Your task to perform on an android device: turn smart compose on in the gmail app Image 0: 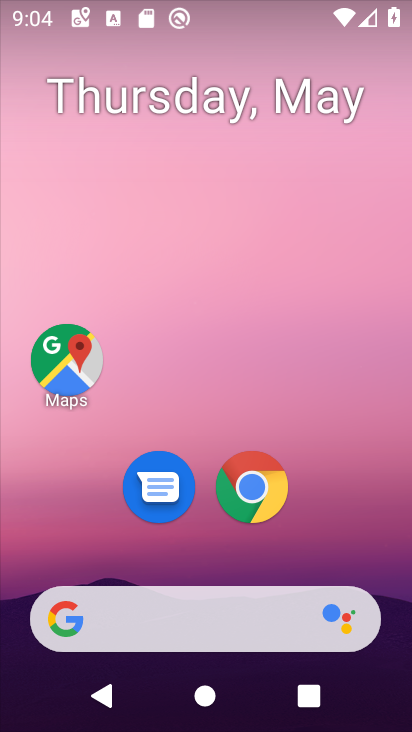
Step 0: drag from (336, 561) to (267, 37)
Your task to perform on an android device: turn smart compose on in the gmail app Image 1: 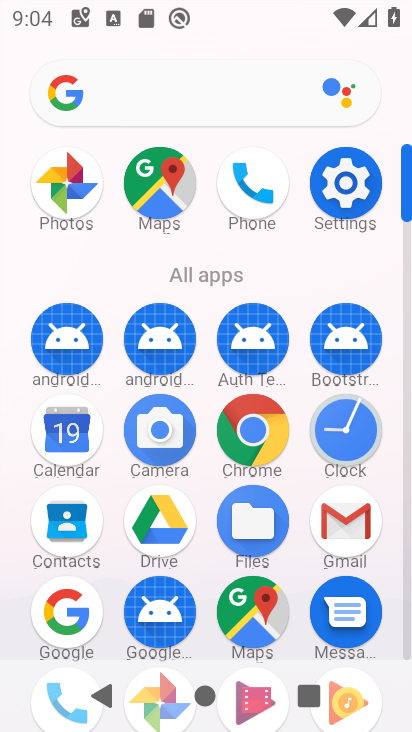
Step 1: click (360, 529)
Your task to perform on an android device: turn smart compose on in the gmail app Image 2: 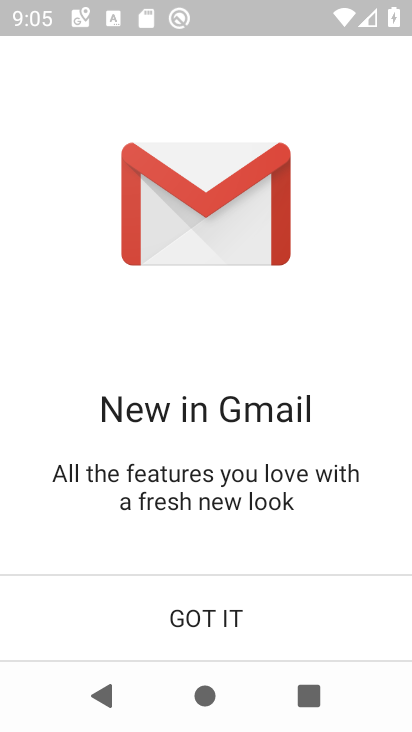
Step 2: click (190, 612)
Your task to perform on an android device: turn smart compose on in the gmail app Image 3: 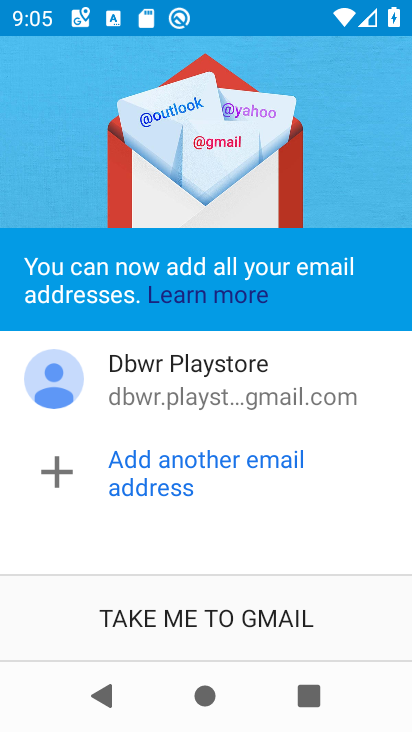
Step 3: click (210, 611)
Your task to perform on an android device: turn smart compose on in the gmail app Image 4: 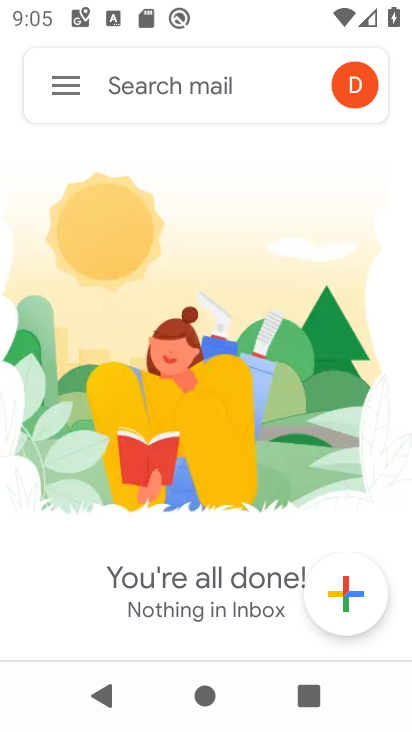
Step 4: click (71, 87)
Your task to perform on an android device: turn smart compose on in the gmail app Image 5: 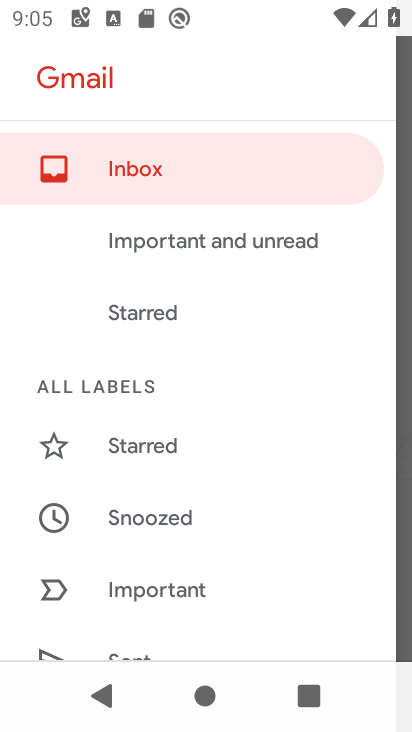
Step 5: drag from (224, 630) to (115, 88)
Your task to perform on an android device: turn smart compose on in the gmail app Image 6: 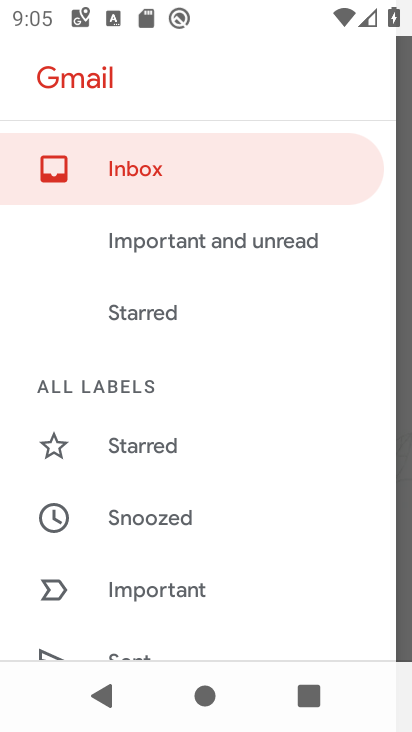
Step 6: drag from (135, 617) to (71, 33)
Your task to perform on an android device: turn smart compose on in the gmail app Image 7: 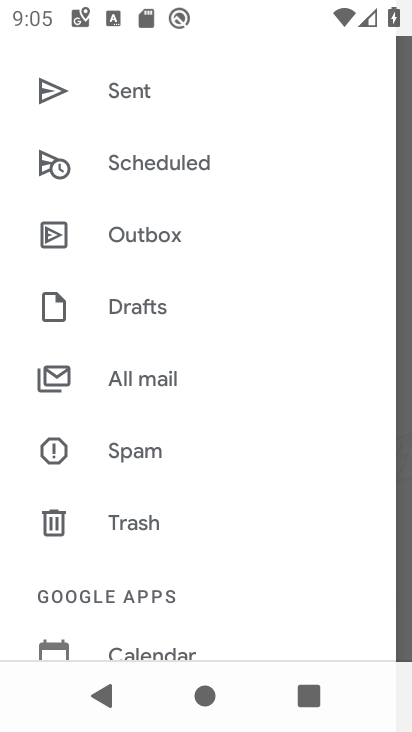
Step 7: drag from (159, 626) to (0, 111)
Your task to perform on an android device: turn smart compose on in the gmail app Image 8: 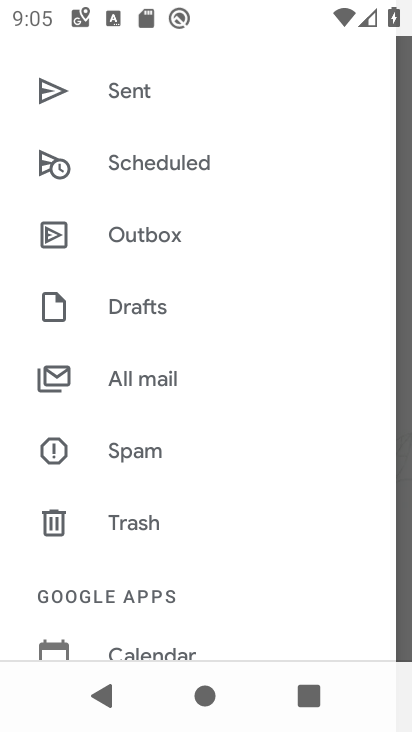
Step 8: drag from (140, 626) to (125, 253)
Your task to perform on an android device: turn smart compose on in the gmail app Image 9: 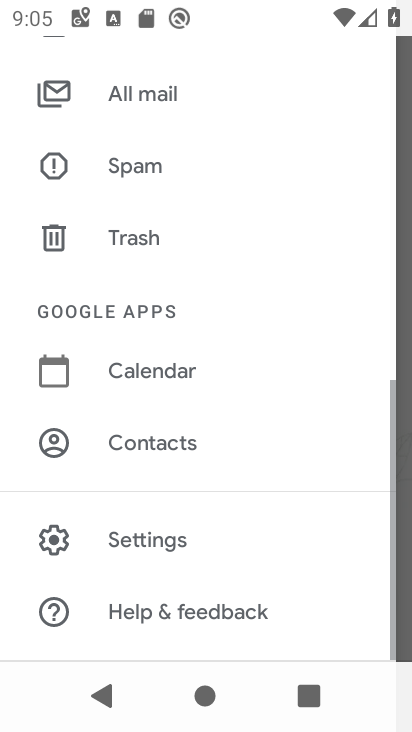
Step 9: click (149, 539)
Your task to perform on an android device: turn smart compose on in the gmail app Image 10: 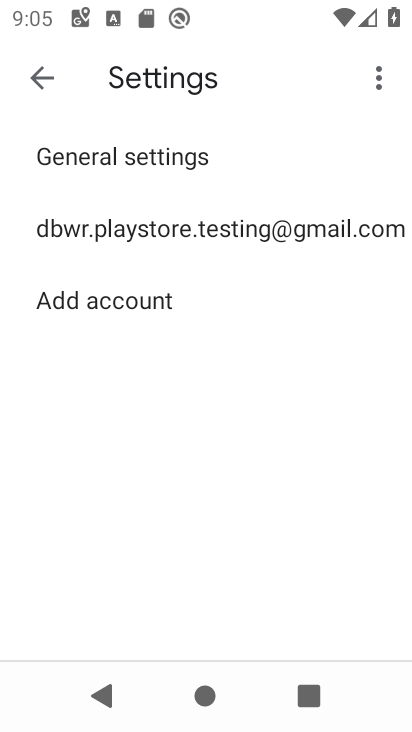
Step 10: click (156, 201)
Your task to perform on an android device: turn smart compose on in the gmail app Image 11: 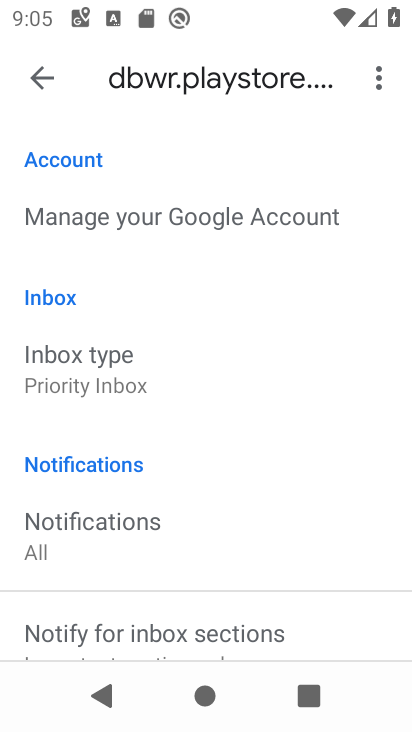
Step 11: task complete